Your task to perform on an android device: delete browsing data in the chrome app Image 0: 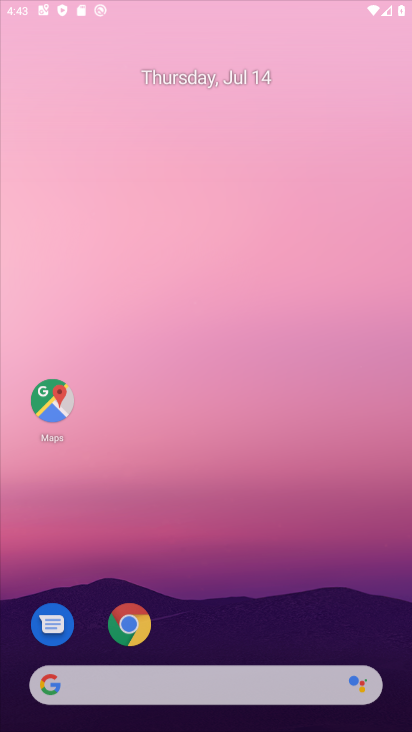
Step 0: click (291, 6)
Your task to perform on an android device: delete browsing data in the chrome app Image 1: 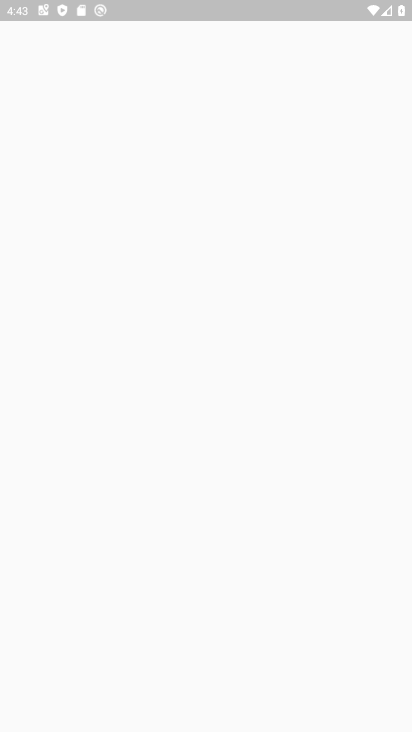
Step 1: press back button
Your task to perform on an android device: delete browsing data in the chrome app Image 2: 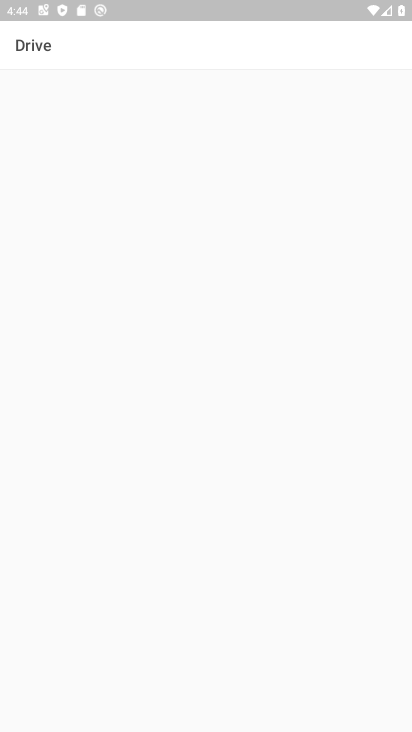
Step 2: press home button
Your task to perform on an android device: delete browsing data in the chrome app Image 3: 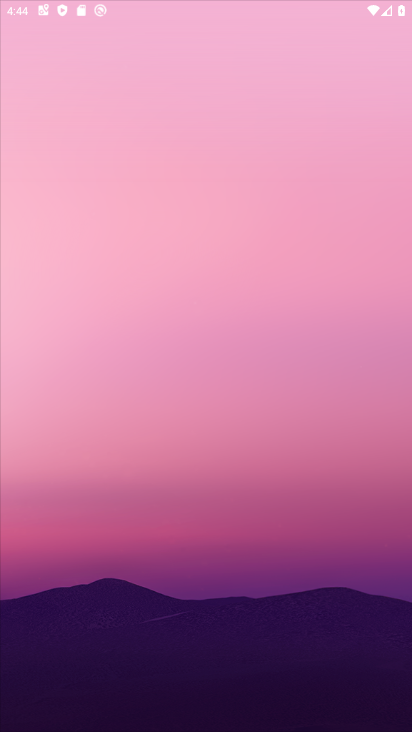
Step 3: click (234, 12)
Your task to perform on an android device: delete browsing data in the chrome app Image 4: 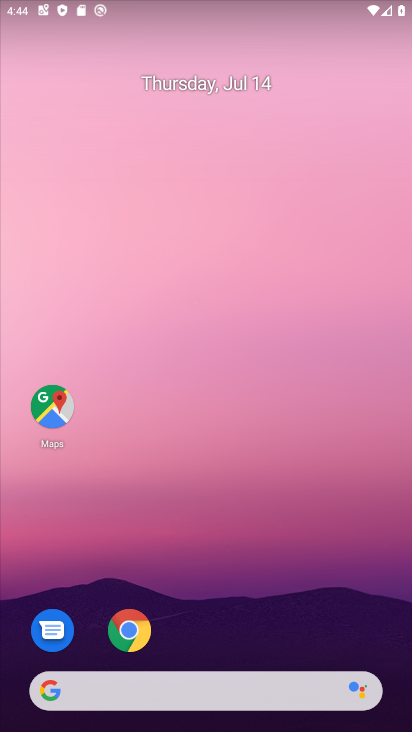
Step 4: click (133, 642)
Your task to perform on an android device: delete browsing data in the chrome app Image 5: 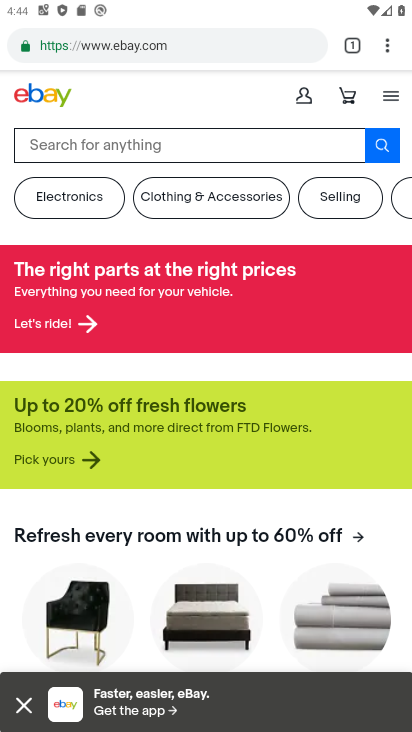
Step 5: drag from (386, 32) to (235, 531)
Your task to perform on an android device: delete browsing data in the chrome app Image 6: 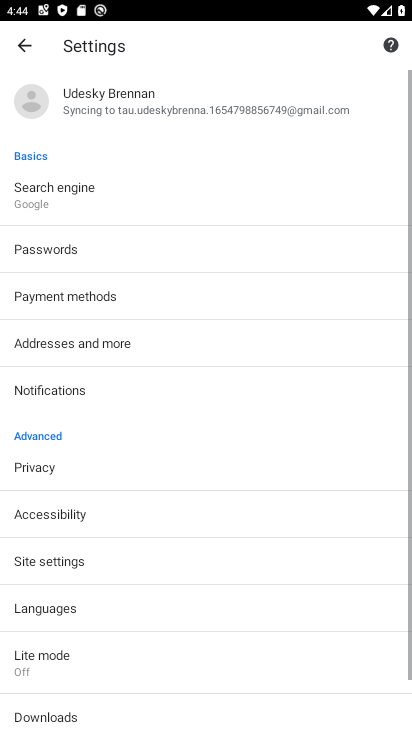
Step 6: click (20, 52)
Your task to perform on an android device: delete browsing data in the chrome app Image 7: 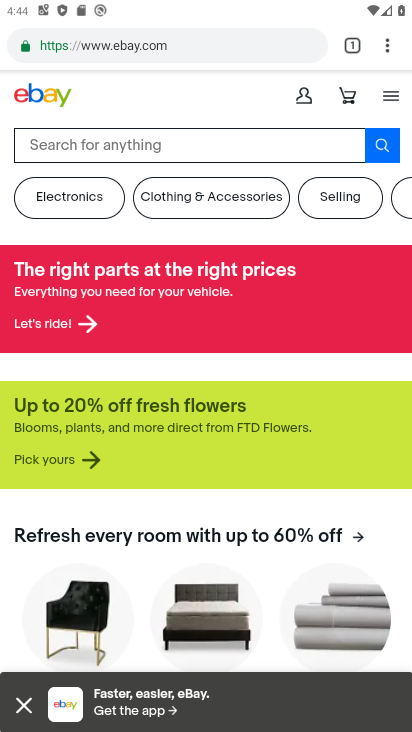
Step 7: drag from (380, 34) to (246, 251)
Your task to perform on an android device: delete browsing data in the chrome app Image 8: 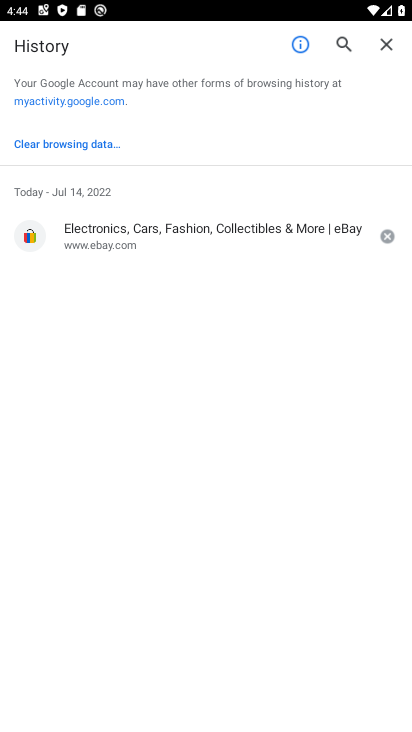
Step 8: click (85, 144)
Your task to perform on an android device: delete browsing data in the chrome app Image 9: 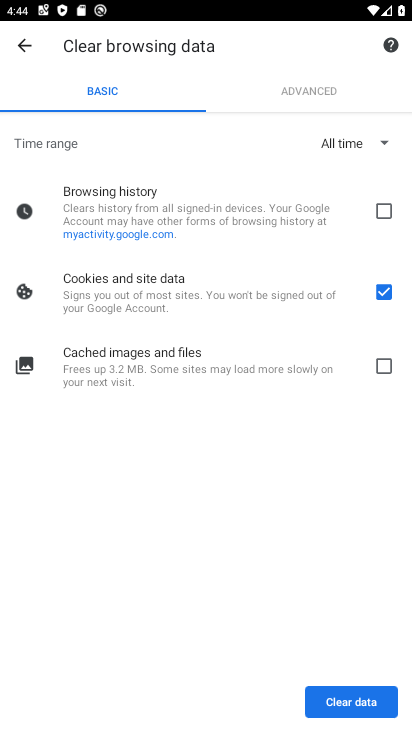
Step 9: click (381, 223)
Your task to perform on an android device: delete browsing data in the chrome app Image 10: 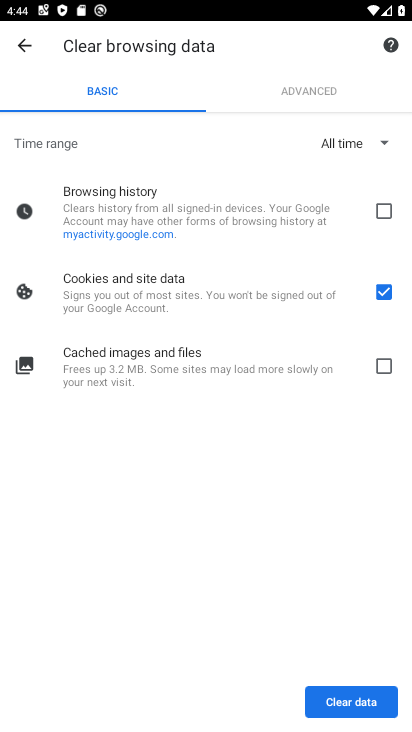
Step 10: click (375, 368)
Your task to perform on an android device: delete browsing data in the chrome app Image 11: 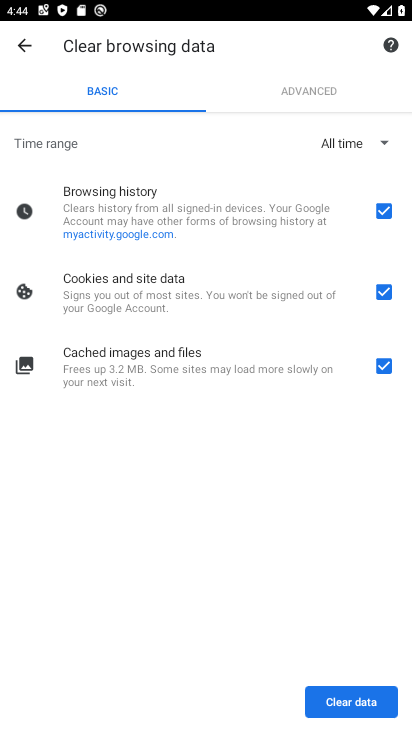
Step 11: click (353, 696)
Your task to perform on an android device: delete browsing data in the chrome app Image 12: 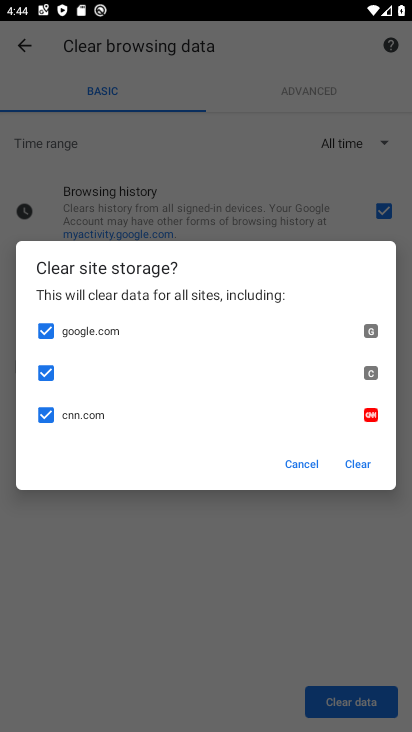
Step 12: click (358, 455)
Your task to perform on an android device: delete browsing data in the chrome app Image 13: 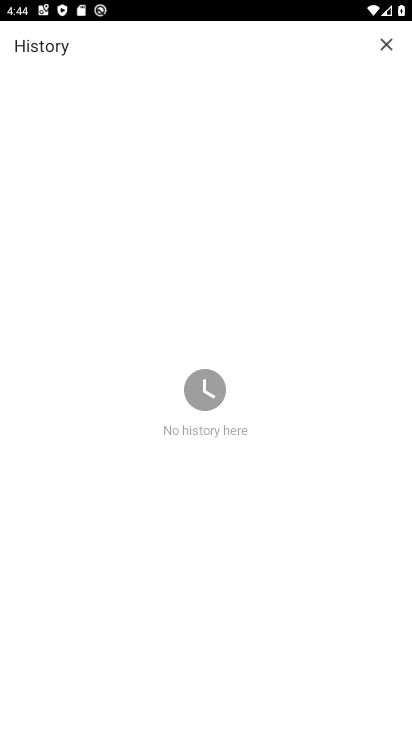
Step 13: task complete